Your task to perform on an android device: star an email in the gmail app Image 0: 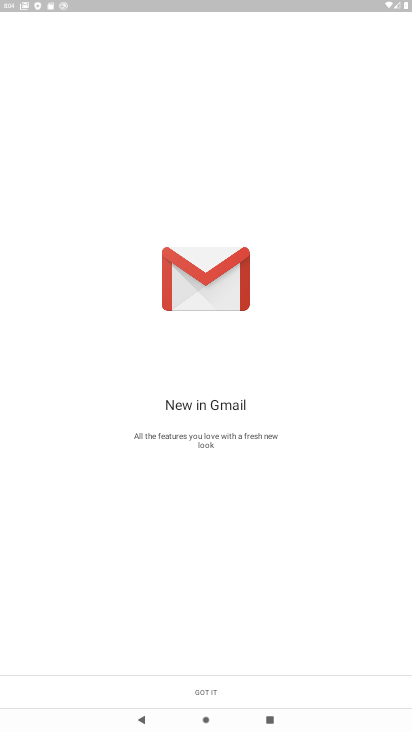
Step 0: click (333, 689)
Your task to perform on an android device: star an email in the gmail app Image 1: 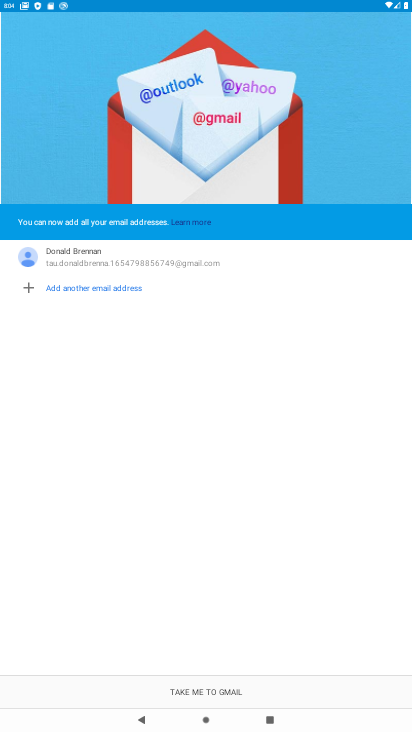
Step 1: click (300, 696)
Your task to perform on an android device: star an email in the gmail app Image 2: 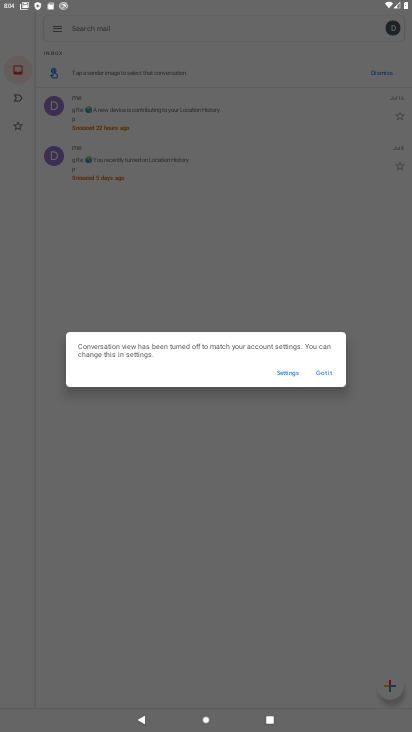
Step 2: click (316, 366)
Your task to perform on an android device: star an email in the gmail app Image 3: 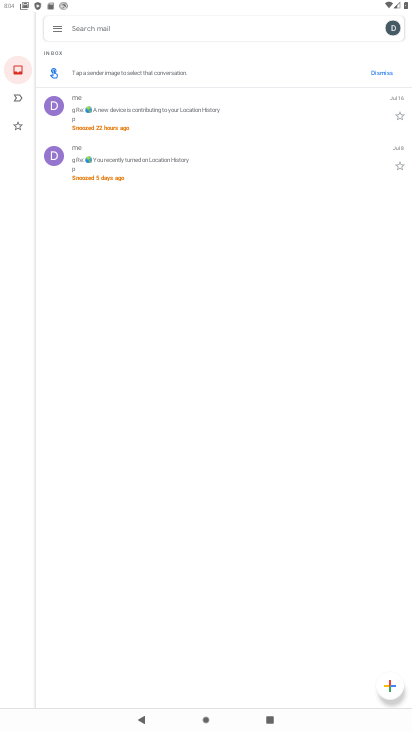
Step 3: click (397, 111)
Your task to perform on an android device: star an email in the gmail app Image 4: 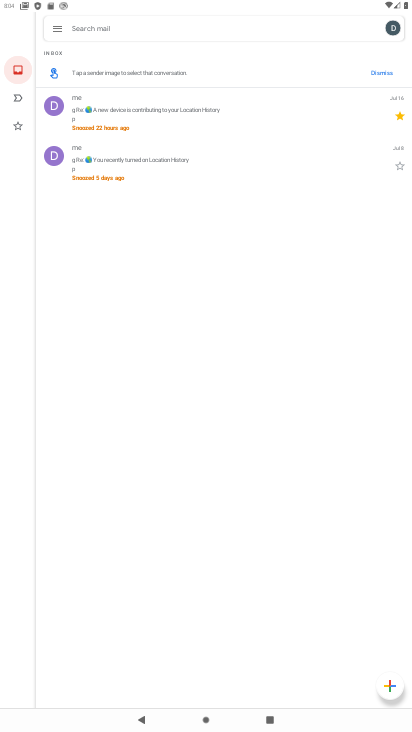
Step 4: task complete